Your task to perform on an android device: turn on the 12-hour format for clock Image 0: 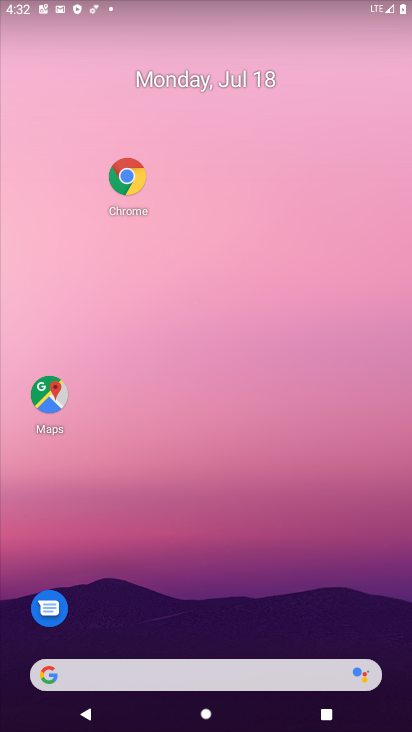
Step 0: drag from (248, 571) to (298, 136)
Your task to perform on an android device: turn on the 12-hour format for clock Image 1: 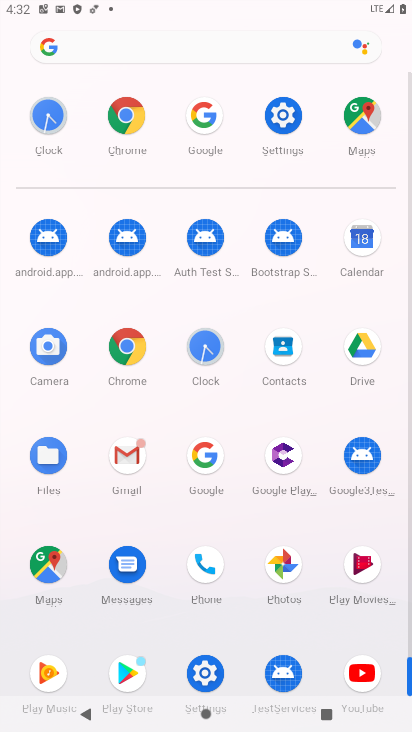
Step 1: click (201, 358)
Your task to perform on an android device: turn on the 12-hour format for clock Image 2: 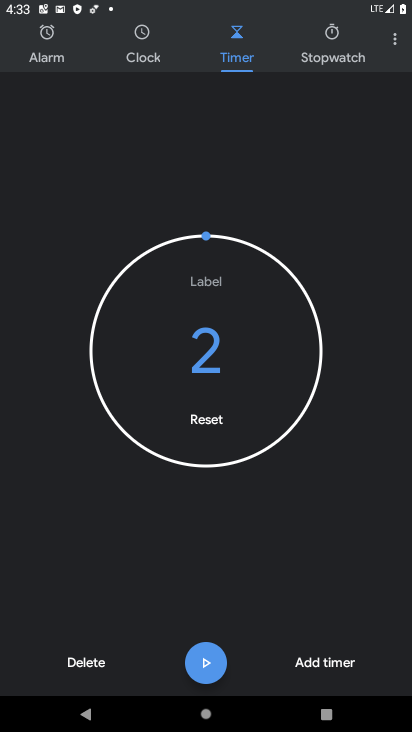
Step 2: click (396, 39)
Your task to perform on an android device: turn on the 12-hour format for clock Image 3: 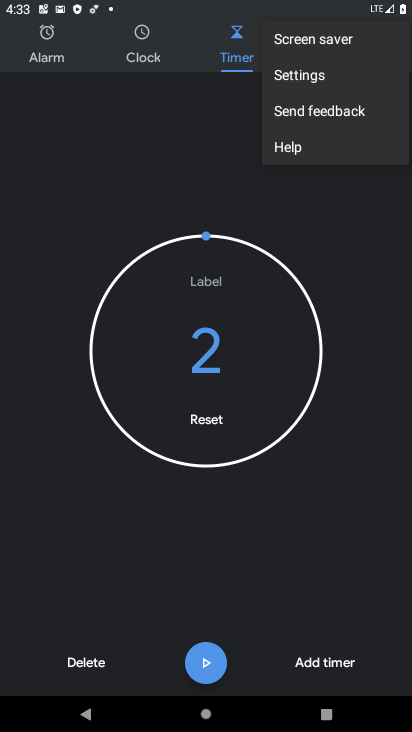
Step 3: click (296, 77)
Your task to perform on an android device: turn on the 12-hour format for clock Image 4: 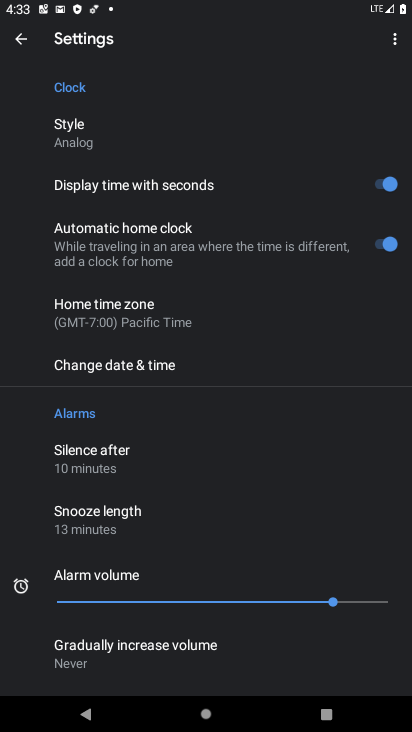
Step 4: drag from (143, 550) to (173, 420)
Your task to perform on an android device: turn on the 12-hour format for clock Image 5: 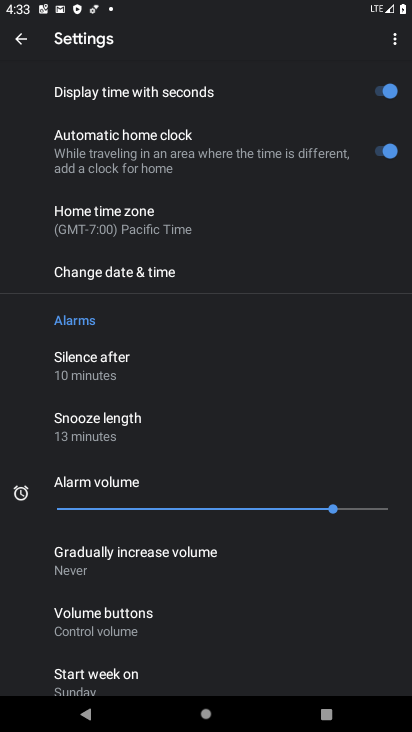
Step 5: click (188, 279)
Your task to perform on an android device: turn on the 12-hour format for clock Image 6: 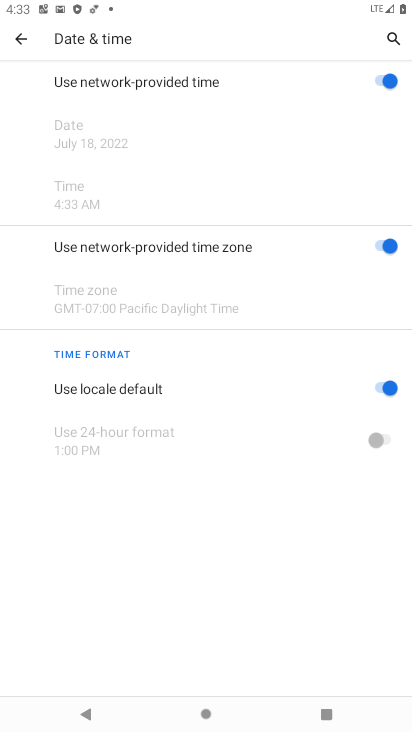
Step 6: task complete